Your task to perform on an android device: set an alarm Image 0: 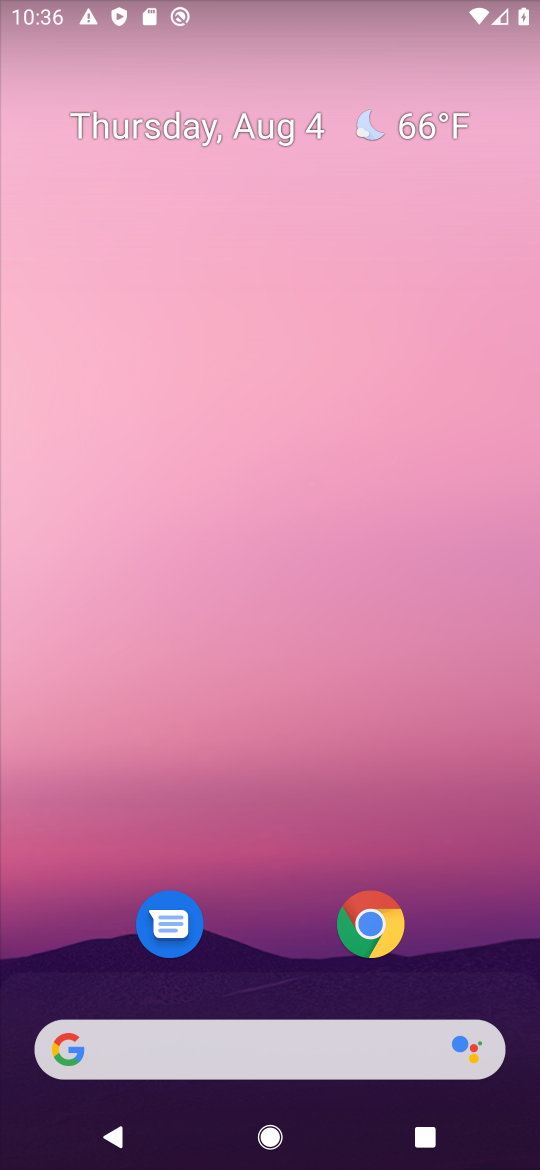
Step 0: press home button
Your task to perform on an android device: set an alarm Image 1: 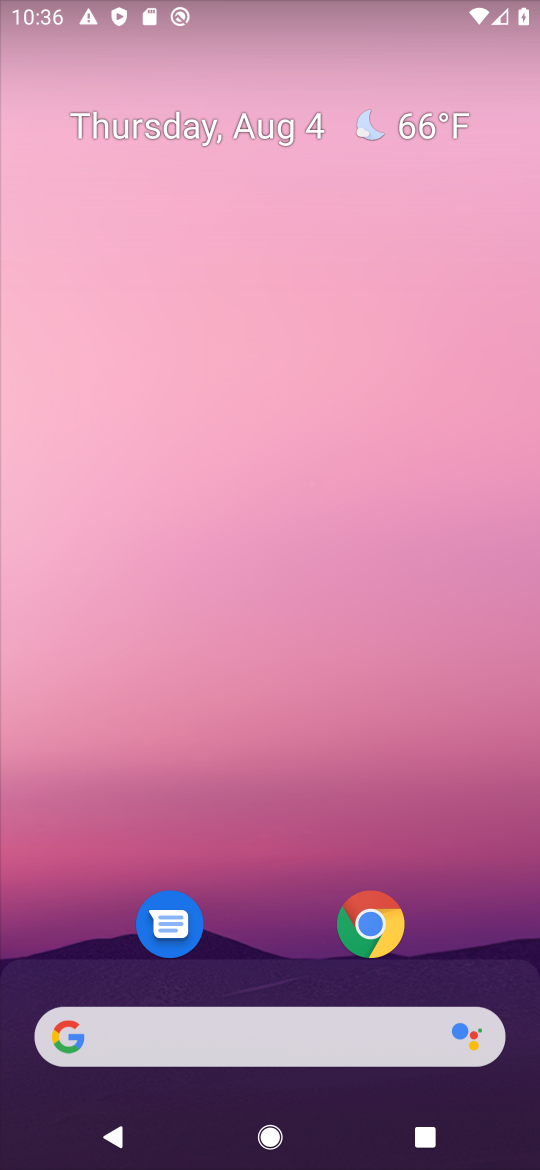
Step 1: drag from (262, 1053) to (386, 283)
Your task to perform on an android device: set an alarm Image 2: 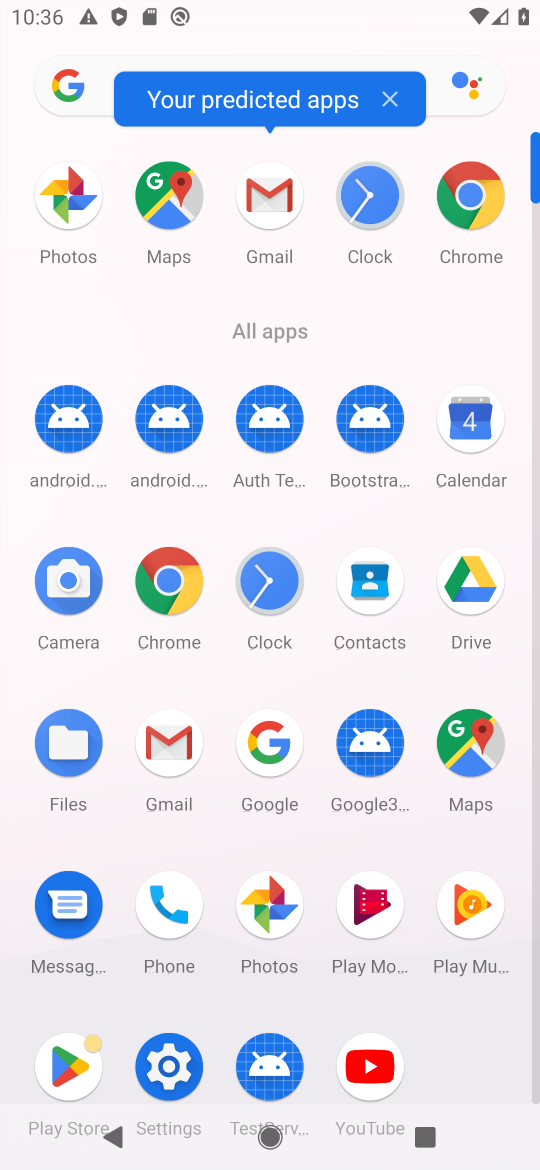
Step 2: click (374, 206)
Your task to perform on an android device: set an alarm Image 3: 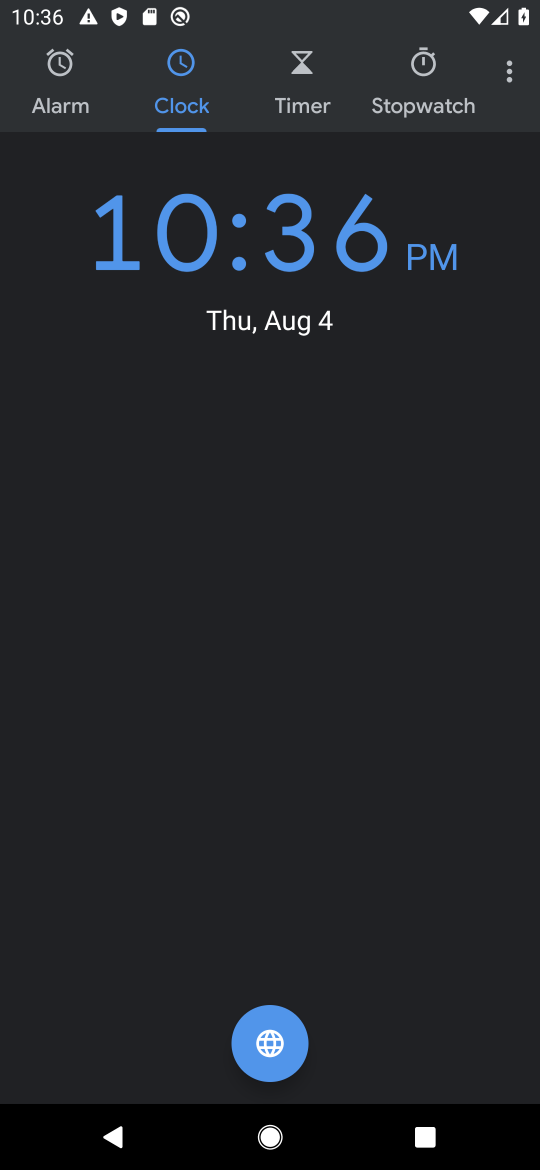
Step 3: click (61, 83)
Your task to perform on an android device: set an alarm Image 4: 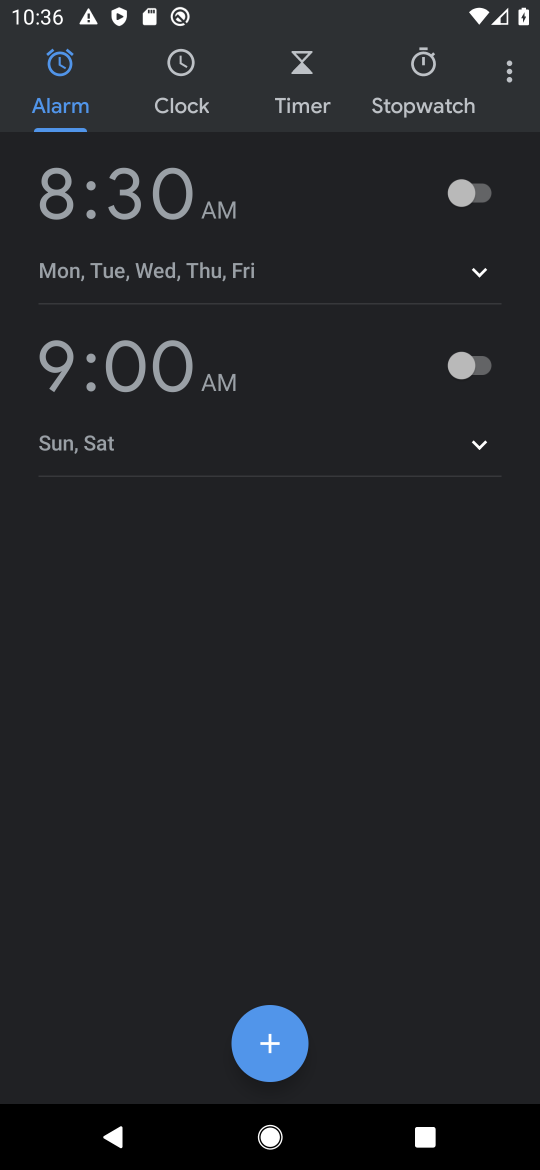
Step 4: click (485, 190)
Your task to perform on an android device: set an alarm Image 5: 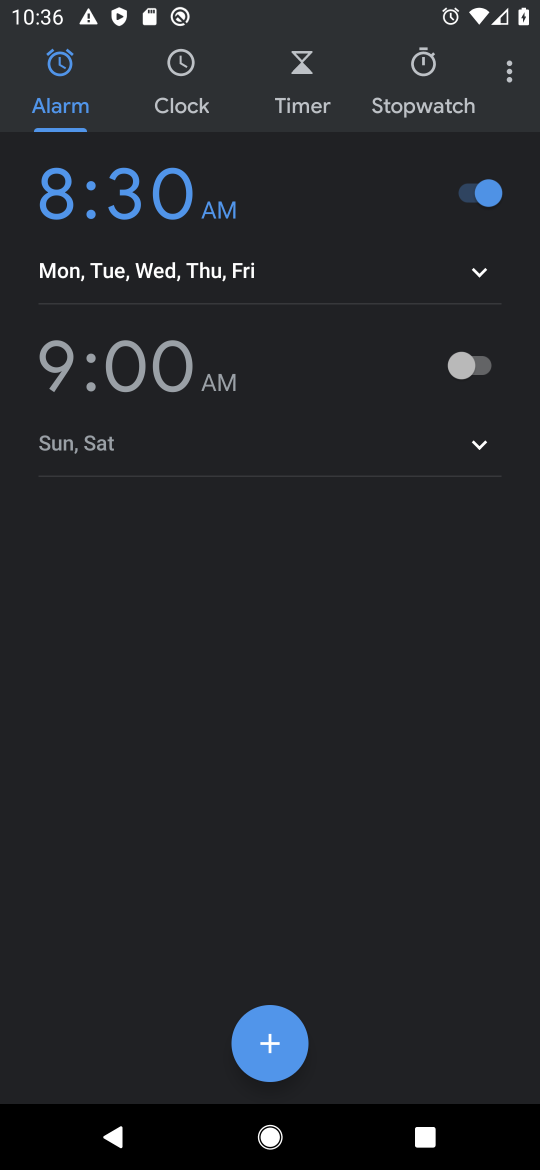
Step 5: task complete